Your task to perform on an android device: Open battery settings Image 0: 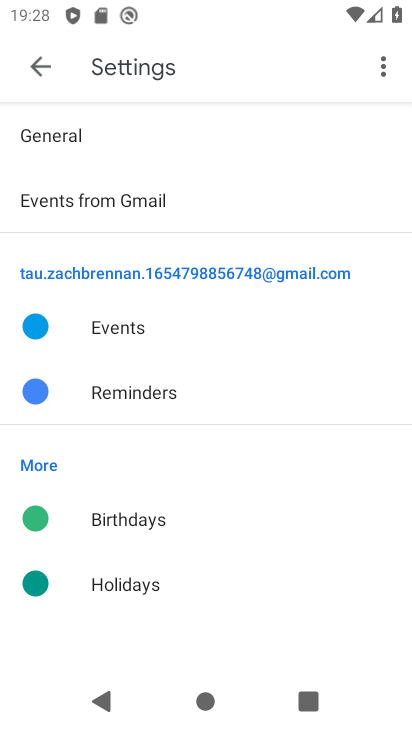
Step 0: press home button
Your task to perform on an android device: Open battery settings Image 1: 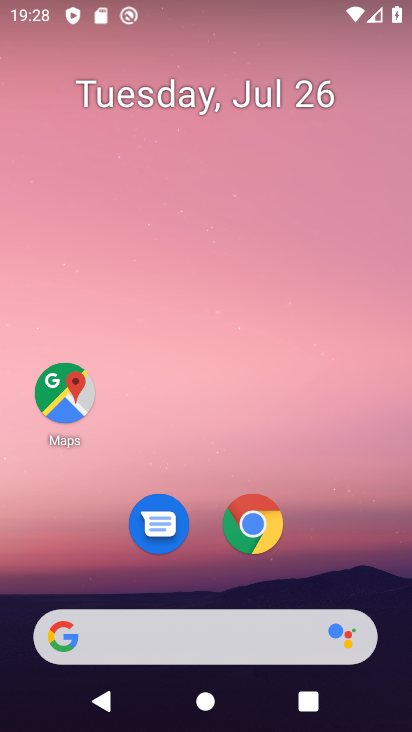
Step 1: drag from (247, 480) to (360, 124)
Your task to perform on an android device: Open battery settings Image 2: 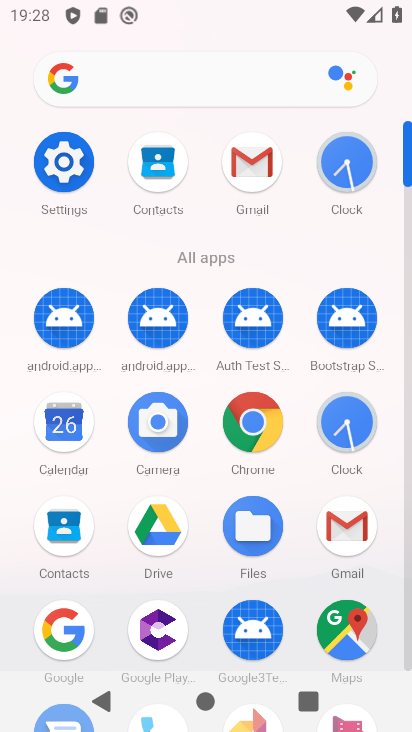
Step 2: click (71, 172)
Your task to perform on an android device: Open battery settings Image 3: 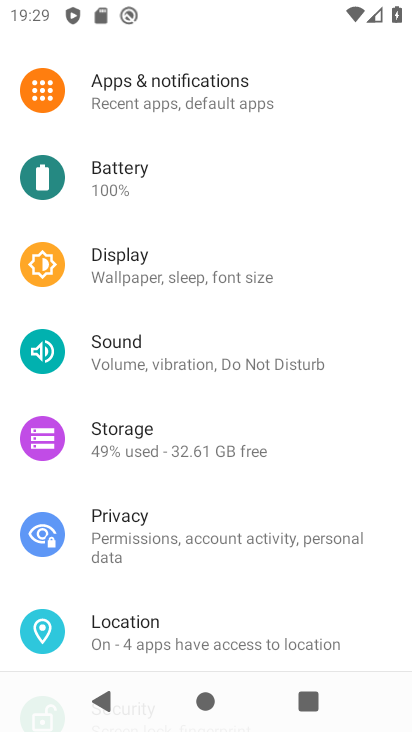
Step 3: click (126, 155)
Your task to perform on an android device: Open battery settings Image 4: 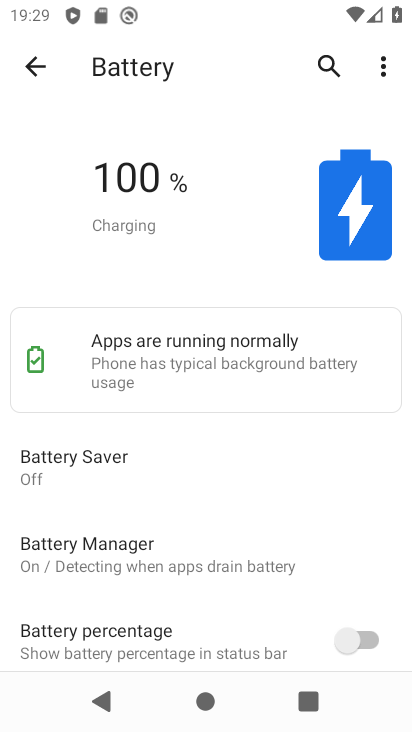
Step 4: task complete